Your task to perform on an android device: Go to Maps Image 0: 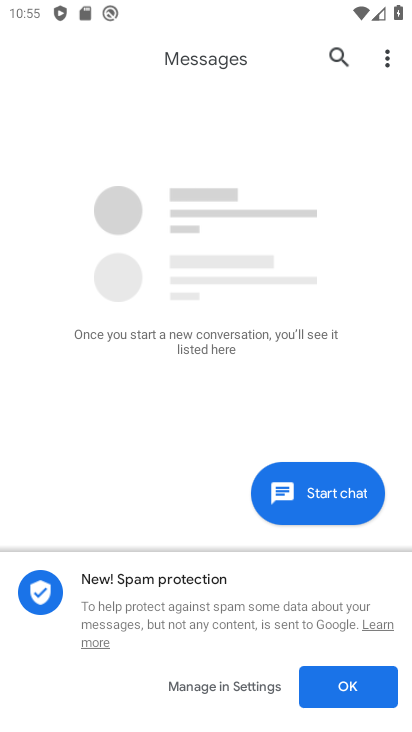
Step 0: press home button
Your task to perform on an android device: Go to Maps Image 1: 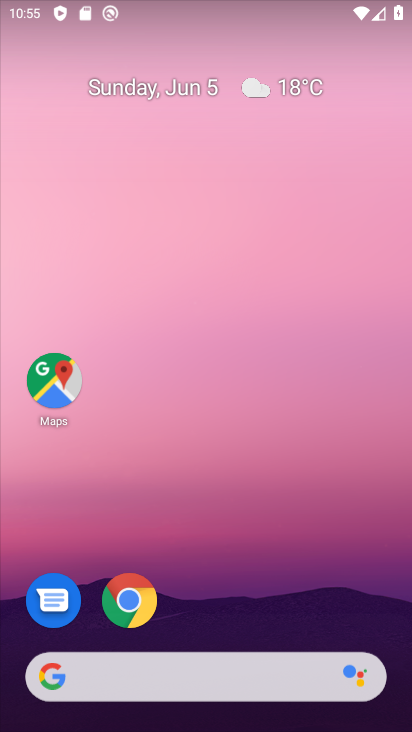
Step 1: click (47, 395)
Your task to perform on an android device: Go to Maps Image 2: 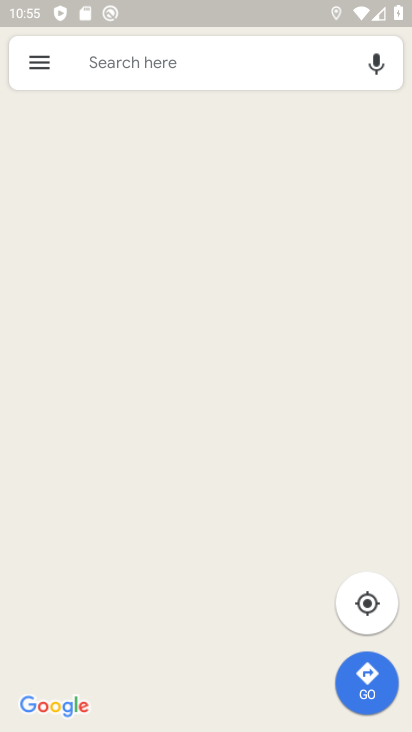
Step 2: task complete